Your task to perform on an android device: Open calendar and show me the fourth week of next month Image 0: 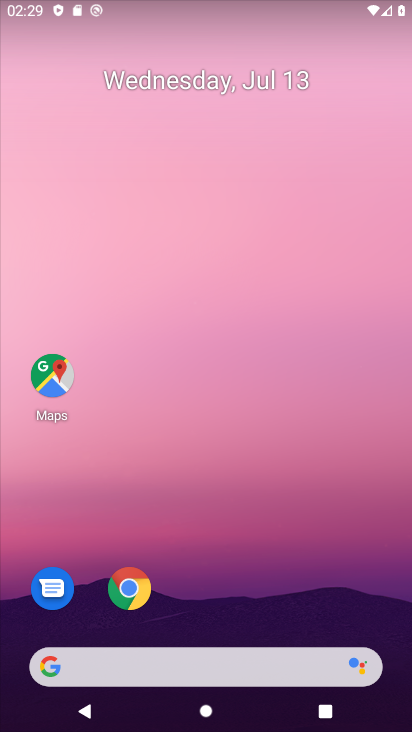
Step 0: drag from (231, 479) to (235, 74)
Your task to perform on an android device: Open calendar and show me the fourth week of next month Image 1: 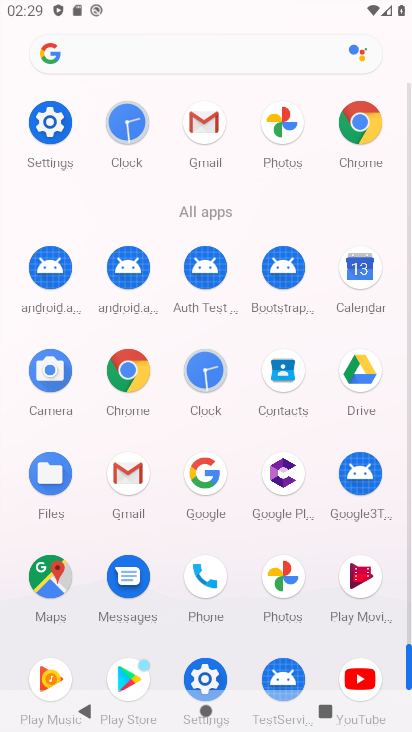
Step 1: click (375, 286)
Your task to perform on an android device: Open calendar and show me the fourth week of next month Image 2: 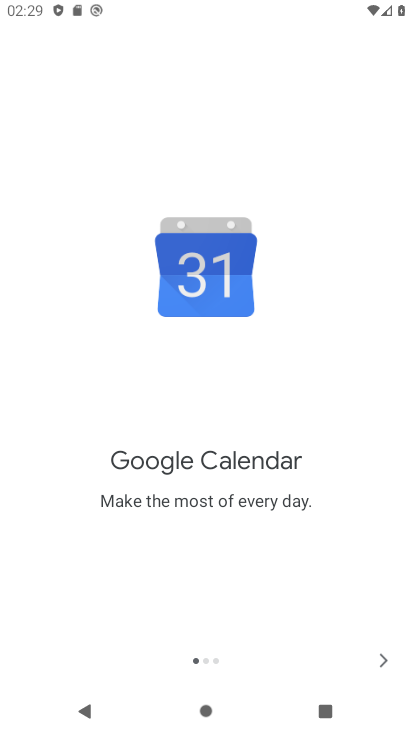
Step 2: click (379, 642)
Your task to perform on an android device: Open calendar and show me the fourth week of next month Image 3: 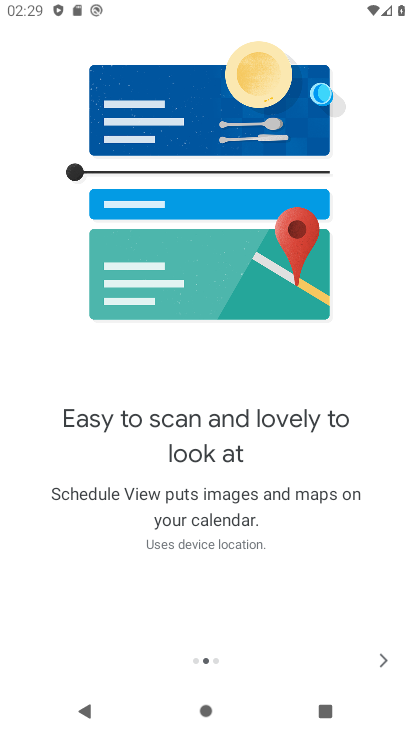
Step 3: click (389, 660)
Your task to perform on an android device: Open calendar and show me the fourth week of next month Image 4: 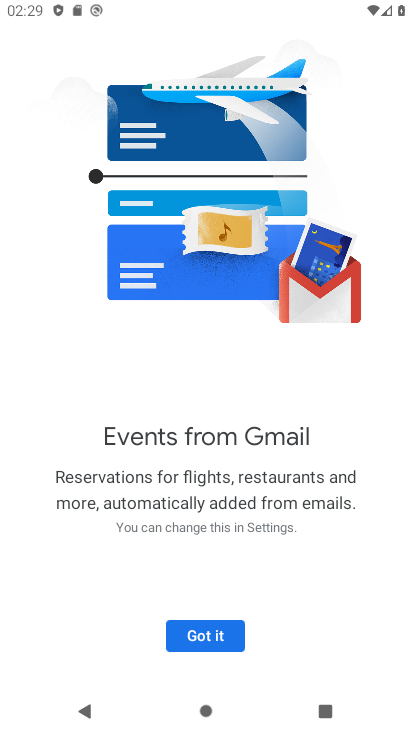
Step 4: click (204, 628)
Your task to perform on an android device: Open calendar and show me the fourth week of next month Image 5: 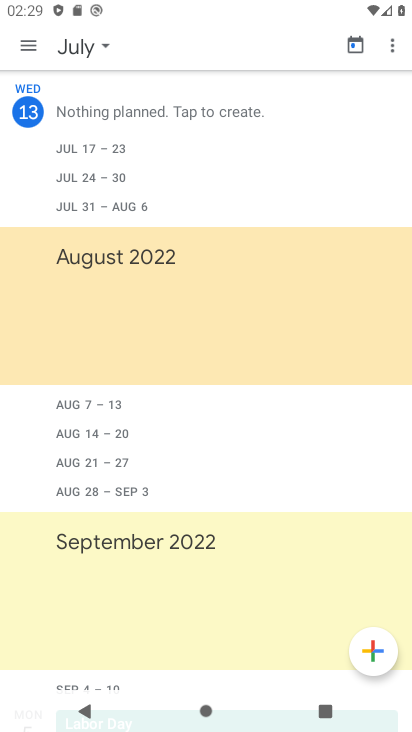
Step 5: click (85, 45)
Your task to perform on an android device: Open calendar and show me the fourth week of next month Image 6: 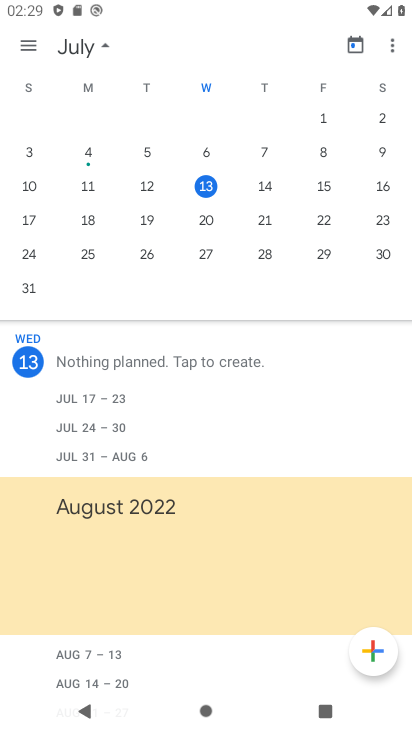
Step 6: drag from (312, 172) to (325, 6)
Your task to perform on an android device: Open calendar and show me the fourth week of next month Image 7: 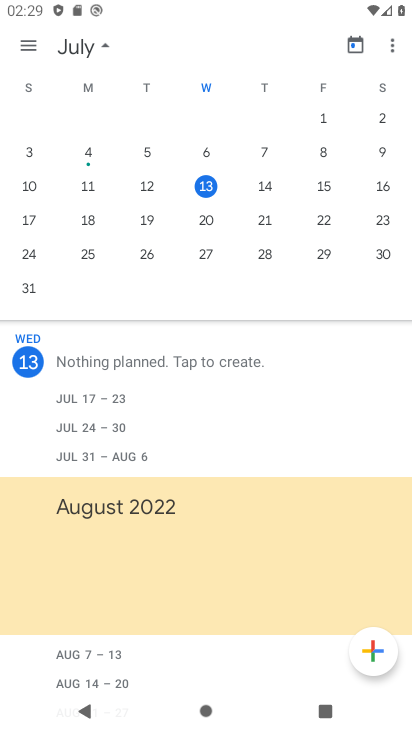
Step 7: click (270, 258)
Your task to perform on an android device: Open calendar and show me the fourth week of next month Image 8: 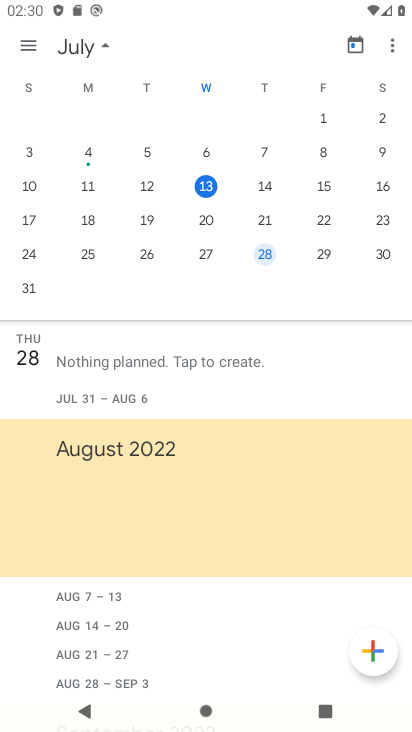
Step 8: task complete